Your task to perform on an android device: Open settings on Google Maps Image 0: 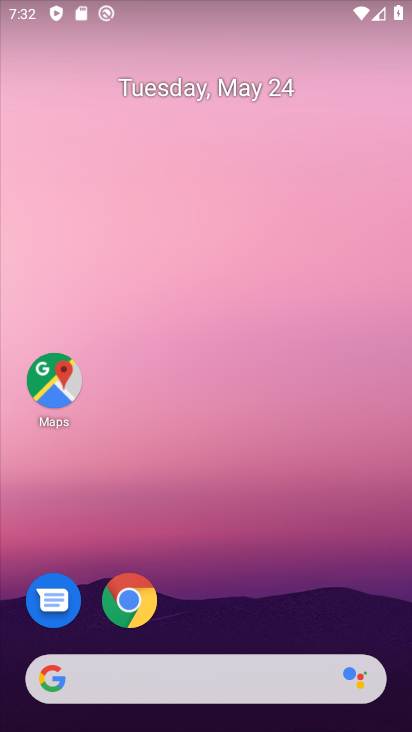
Step 0: drag from (364, 613) to (370, 194)
Your task to perform on an android device: Open settings on Google Maps Image 1: 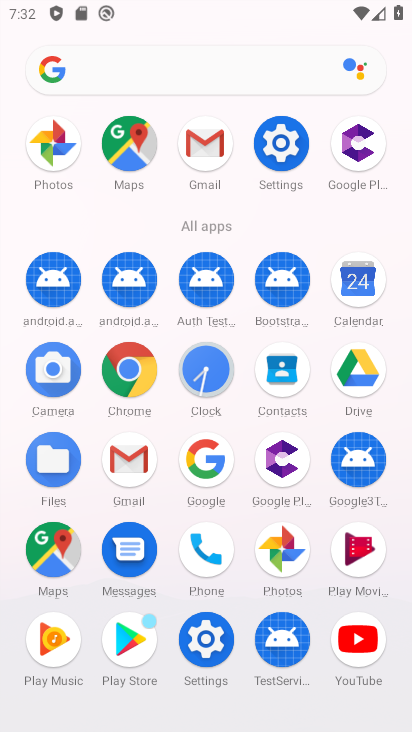
Step 1: click (51, 550)
Your task to perform on an android device: Open settings on Google Maps Image 2: 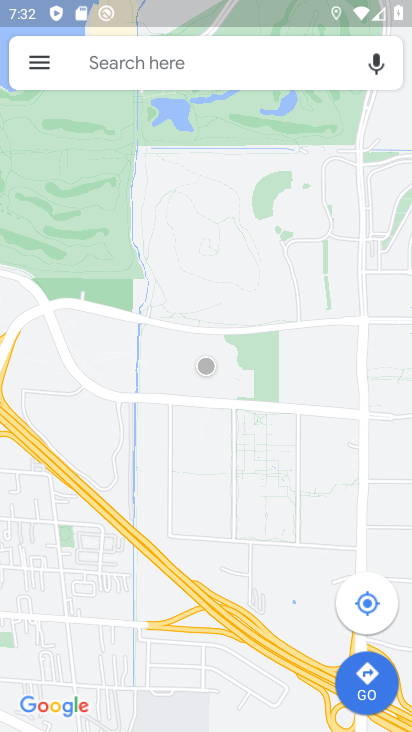
Step 2: click (37, 68)
Your task to perform on an android device: Open settings on Google Maps Image 3: 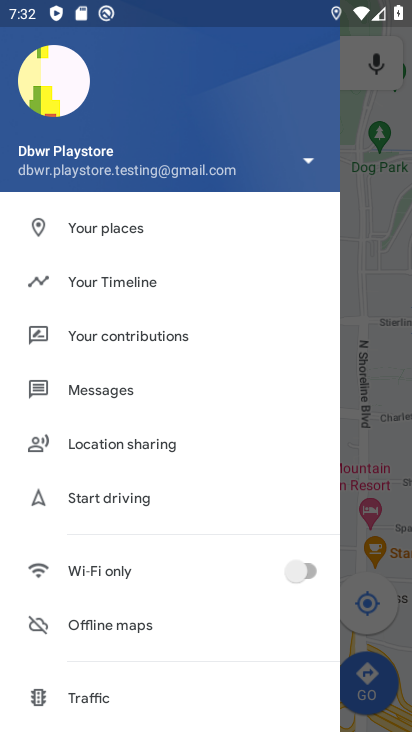
Step 3: drag from (223, 625) to (245, 421)
Your task to perform on an android device: Open settings on Google Maps Image 4: 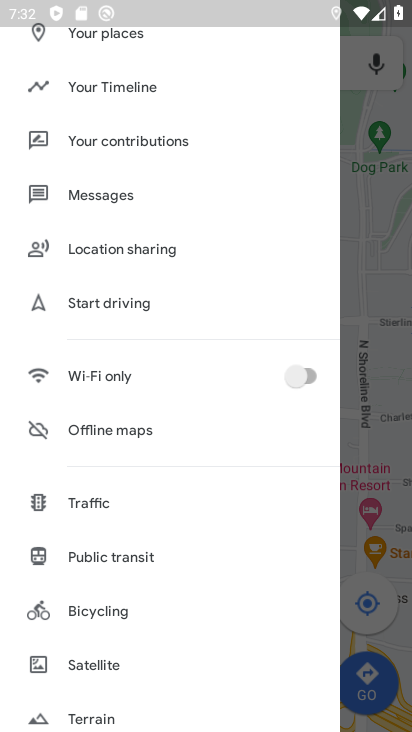
Step 4: drag from (232, 567) to (273, 409)
Your task to perform on an android device: Open settings on Google Maps Image 5: 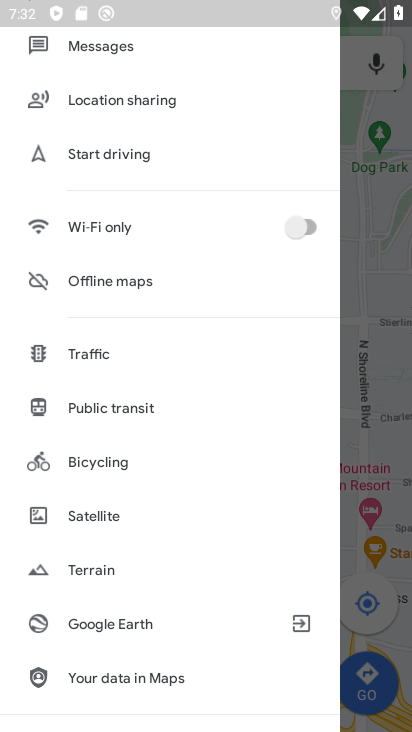
Step 5: drag from (206, 597) to (228, 406)
Your task to perform on an android device: Open settings on Google Maps Image 6: 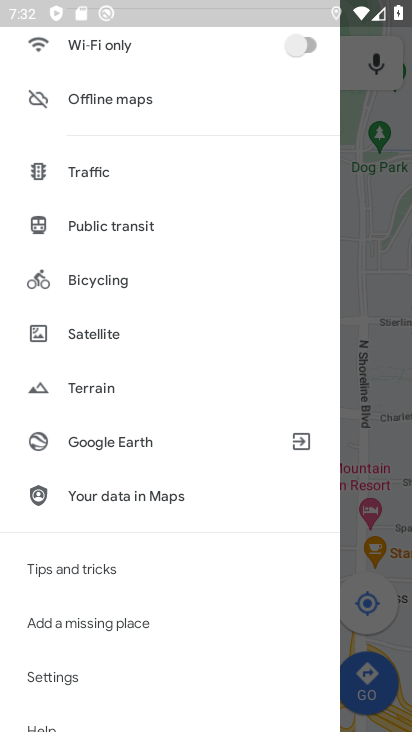
Step 6: drag from (216, 633) to (214, 465)
Your task to perform on an android device: Open settings on Google Maps Image 7: 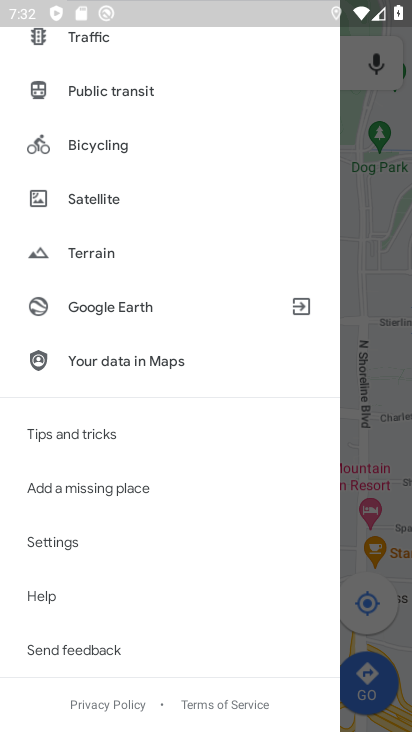
Step 7: click (96, 551)
Your task to perform on an android device: Open settings on Google Maps Image 8: 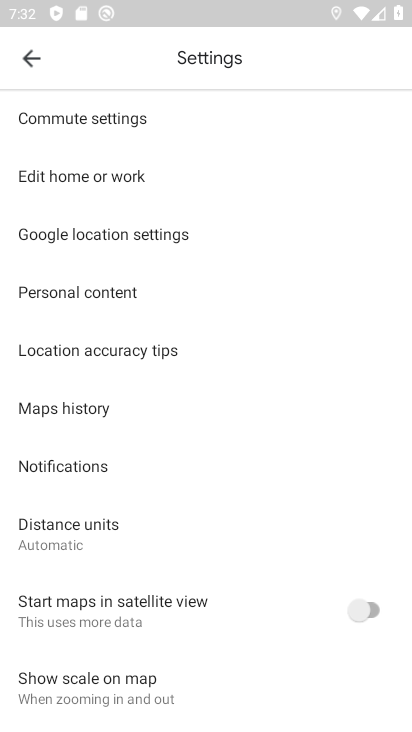
Step 8: task complete